Your task to perform on an android device: clear all cookies in the chrome app Image 0: 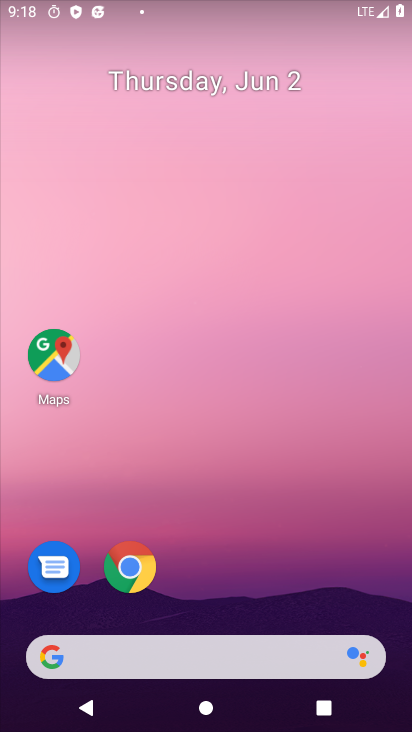
Step 0: drag from (287, 594) to (302, 128)
Your task to perform on an android device: clear all cookies in the chrome app Image 1: 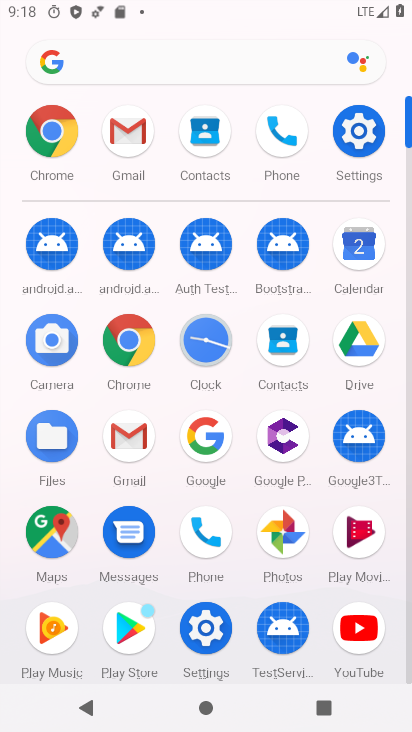
Step 1: click (122, 347)
Your task to perform on an android device: clear all cookies in the chrome app Image 2: 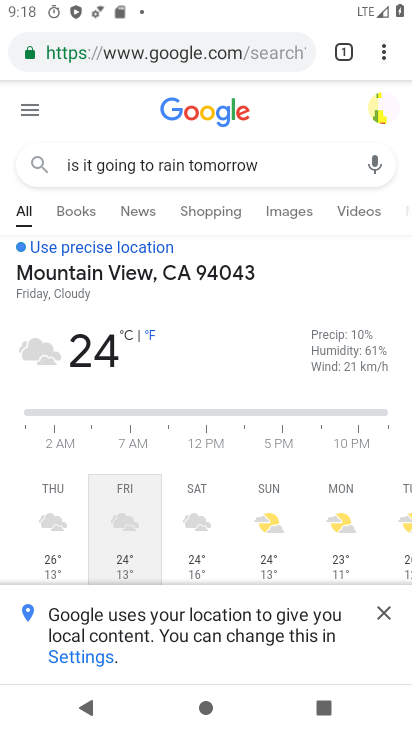
Step 2: drag from (375, 65) to (290, 575)
Your task to perform on an android device: clear all cookies in the chrome app Image 3: 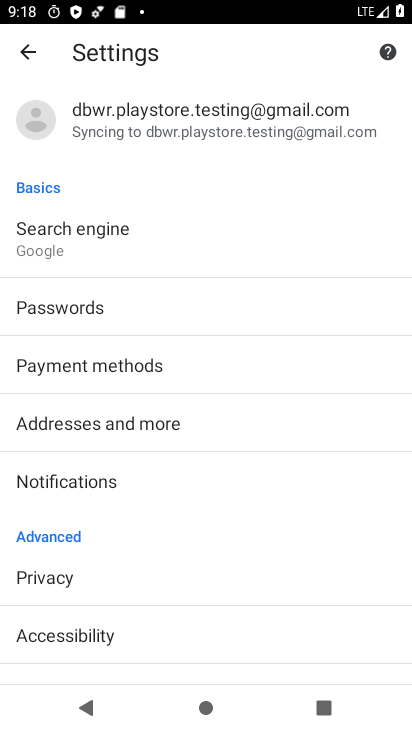
Step 3: click (31, 43)
Your task to perform on an android device: clear all cookies in the chrome app Image 4: 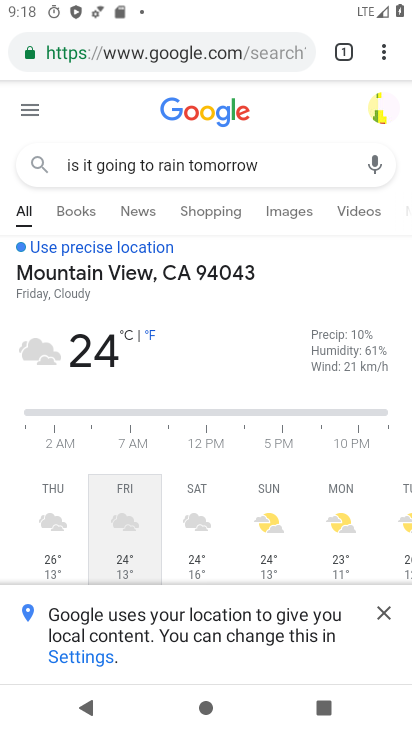
Step 4: drag from (386, 54) to (258, 290)
Your task to perform on an android device: clear all cookies in the chrome app Image 5: 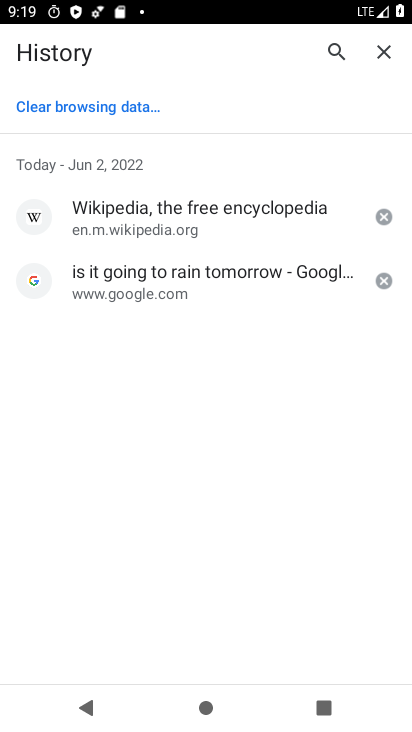
Step 5: click (139, 115)
Your task to perform on an android device: clear all cookies in the chrome app Image 6: 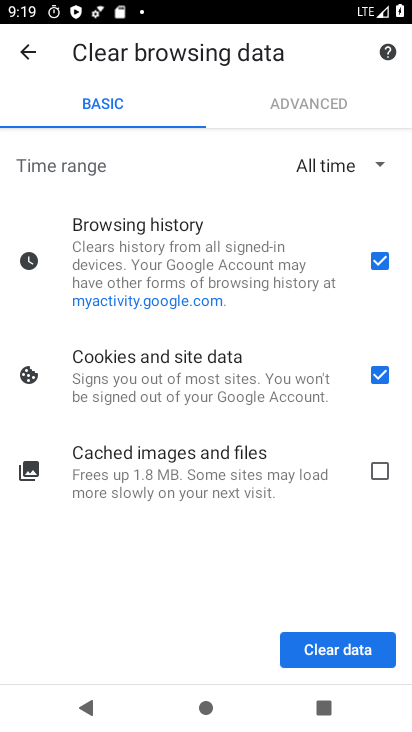
Step 6: click (377, 264)
Your task to perform on an android device: clear all cookies in the chrome app Image 7: 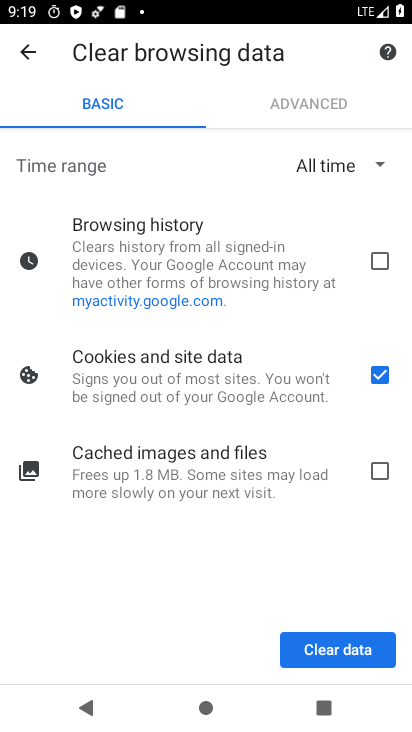
Step 7: click (355, 652)
Your task to perform on an android device: clear all cookies in the chrome app Image 8: 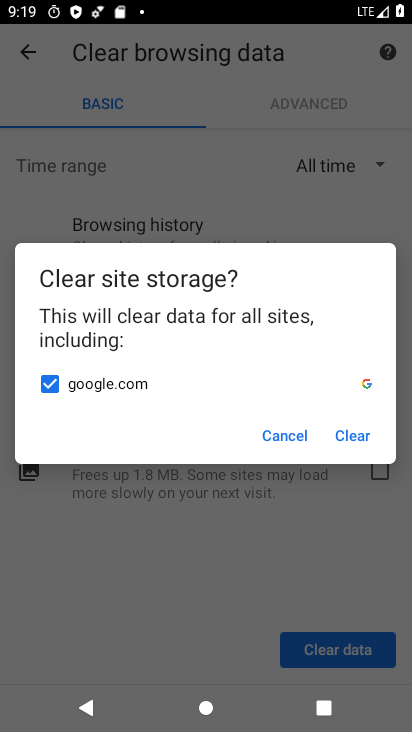
Step 8: click (367, 434)
Your task to perform on an android device: clear all cookies in the chrome app Image 9: 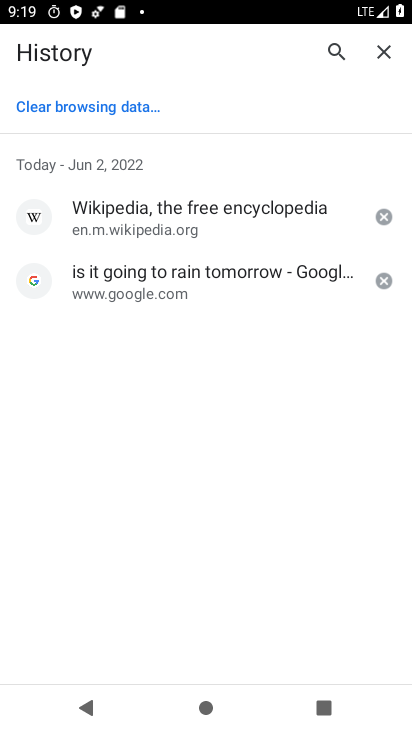
Step 9: task complete